Your task to perform on an android device: turn on sleep mode Image 0: 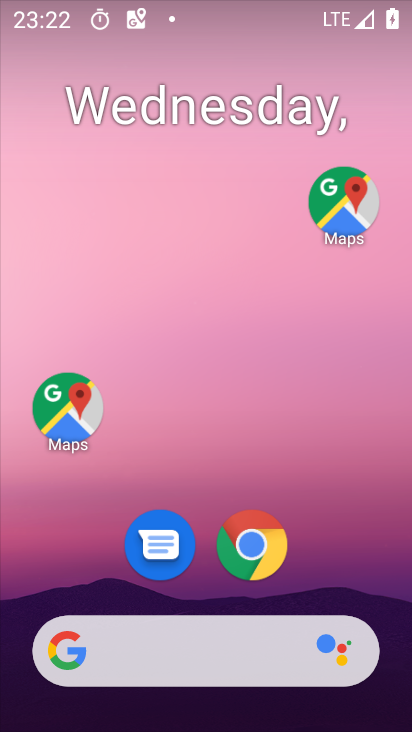
Step 0: drag from (308, 594) to (302, 98)
Your task to perform on an android device: turn on sleep mode Image 1: 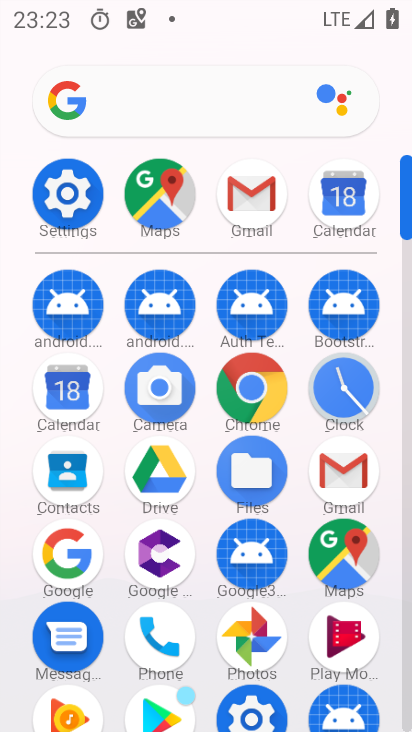
Step 1: click (59, 196)
Your task to perform on an android device: turn on sleep mode Image 2: 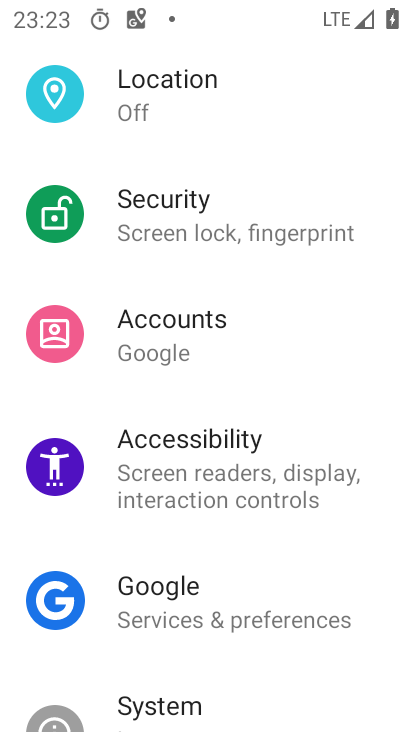
Step 2: task complete